Your task to perform on an android device: What is the news today? Image 0: 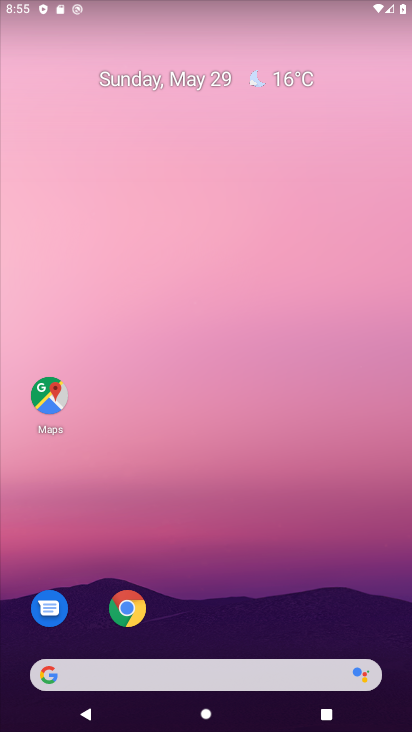
Step 0: click (190, 679)
Your task to perform on an android device: What is the news today? Image 1: 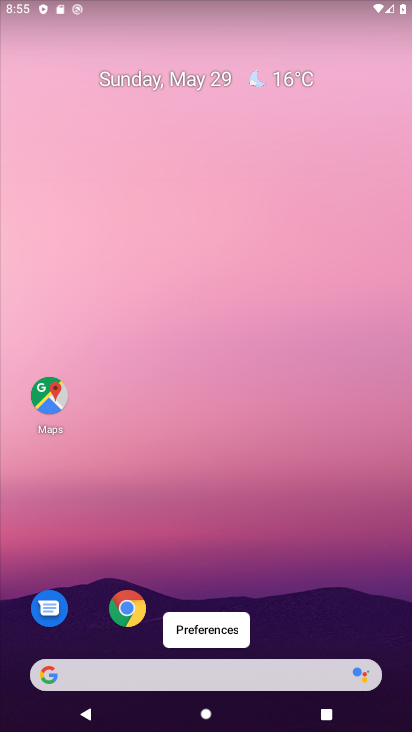
Step 1: click (192, 678)
Your task to perform on an android device: What is the news today? Image 2: 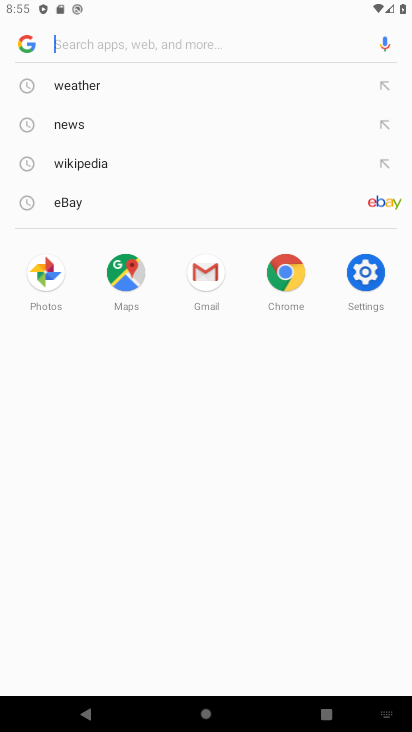
Step 2: type "news today"
Your task to perform on an android device: What is the news today? Image 3: 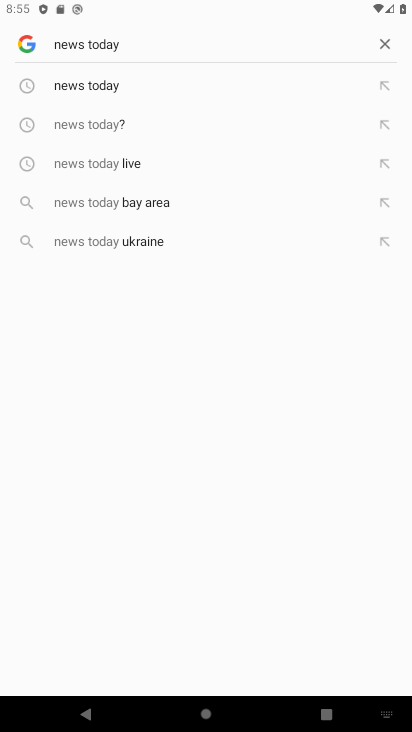
Step 3: click (96, 98)
Your task to perform on an android device: What is the news today? Image 4: 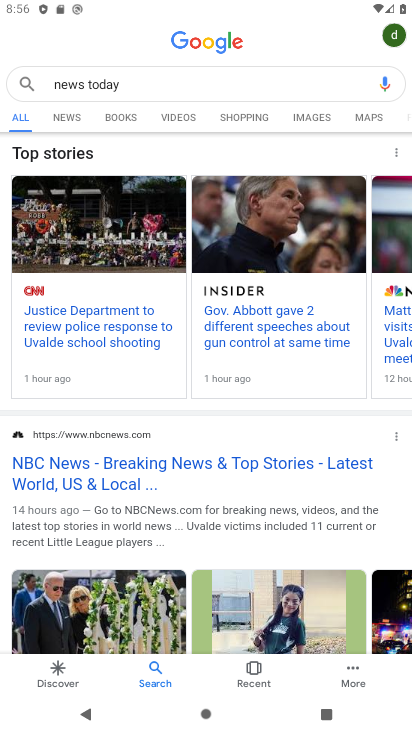
Step 4: task complete